Your task to perform on an android device: Go to location settings Image 0: 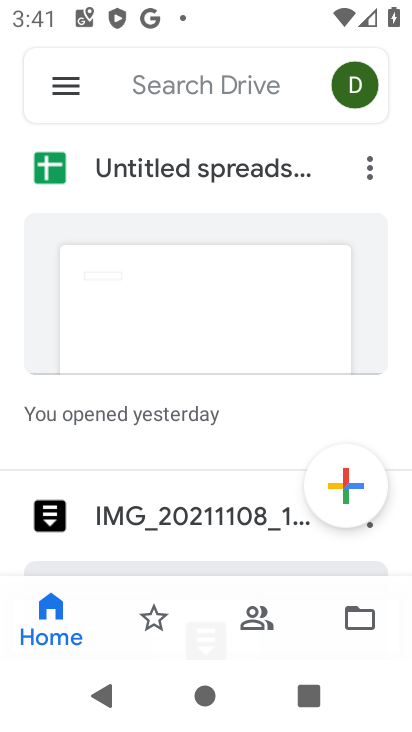
Step 0: press home button
Your task to perform on an android device: Go to location settings Image 1: 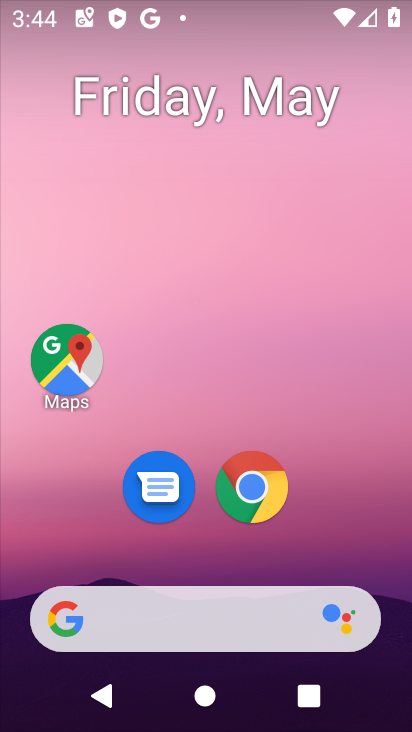
Step 1: drag from (402, 623) to (306, 74)
Your task to perform on an android device: Go to location settings Image 2: 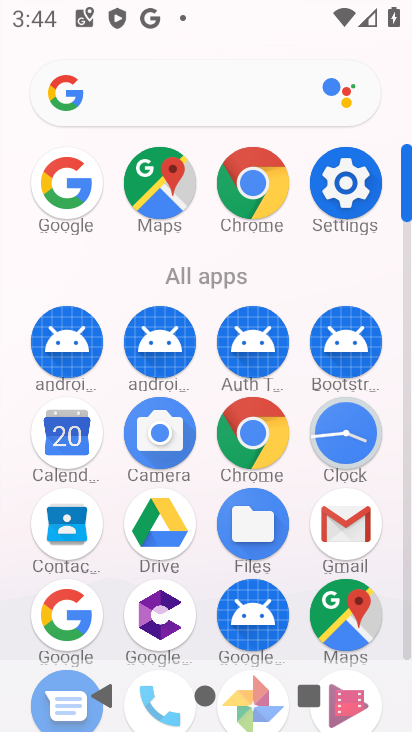
Step 2: click (335, 181)
Your task to perform on an android device: Go to location settings Image 3: 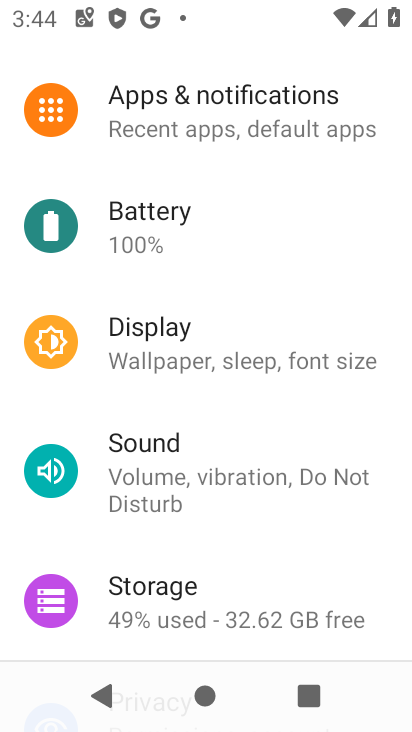
Step 3: drag from (208, 602) to (224, 101)
Your task to perform on an android device: Go to location settings Image 4: 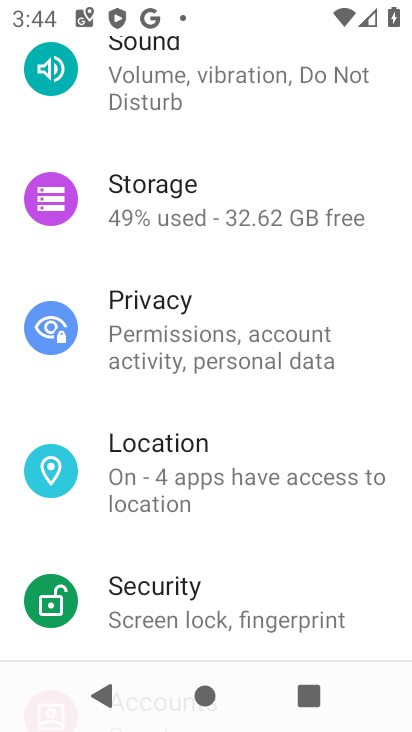
Step 4: click (168, 468)
Your task to perform on an android device: Go to location settings Image 5: 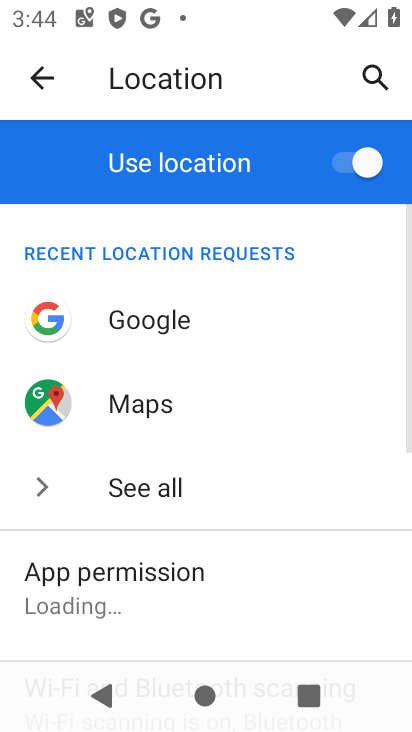
Step 5: task complete